Your task to perform on an android device: check data usage Image 0: 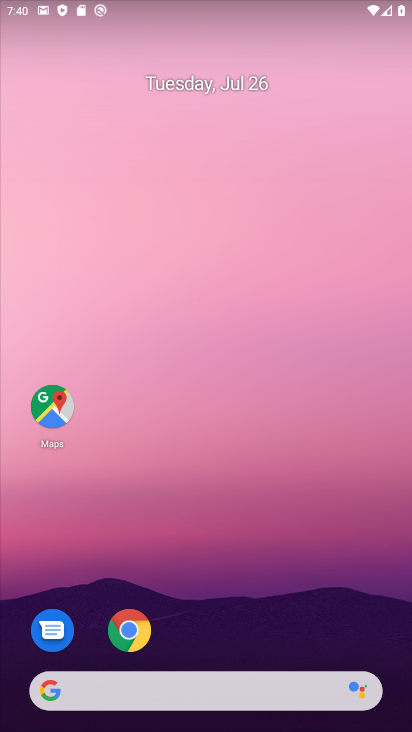
Step 0: drag from (218, 662) to (192, 21)
Your task to perform on an android device: check data usage Image 1: 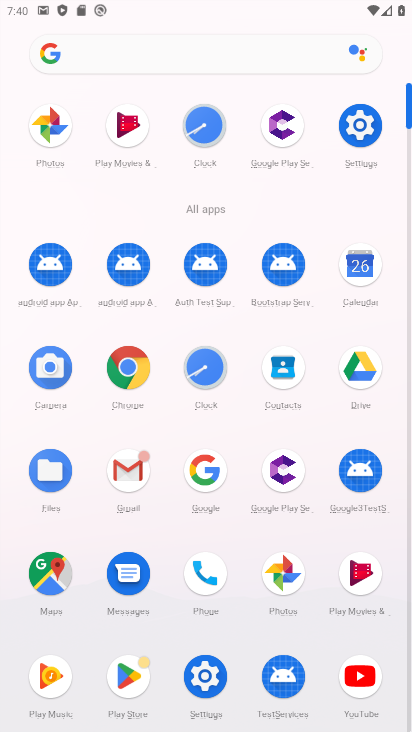
Step 1: click (348, 139)
Your task to perform on an android device: check data usage Image 2: 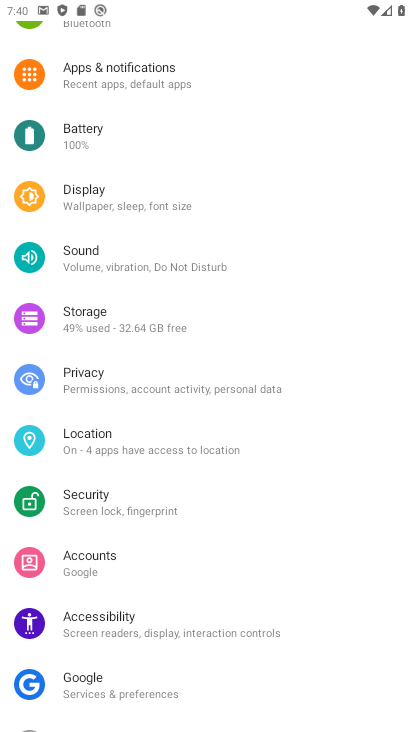
Step 2: drag from (223, 84) to (303, 493)
Your task to perform on an android device: check data usage Image 3: 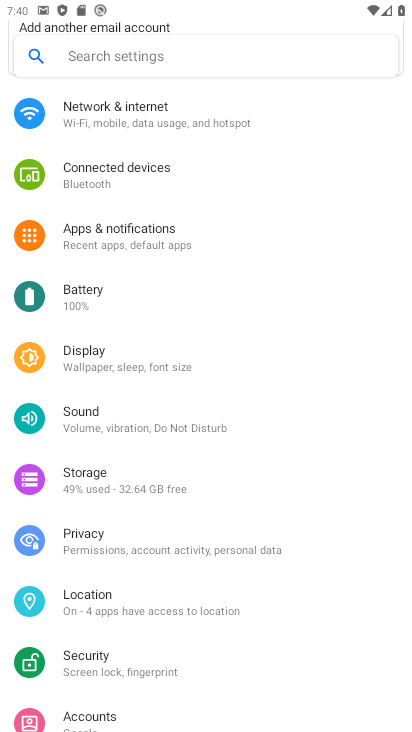
Step 3: click (187, 105)
Your task to perform on an android device: check data usage Image 4: 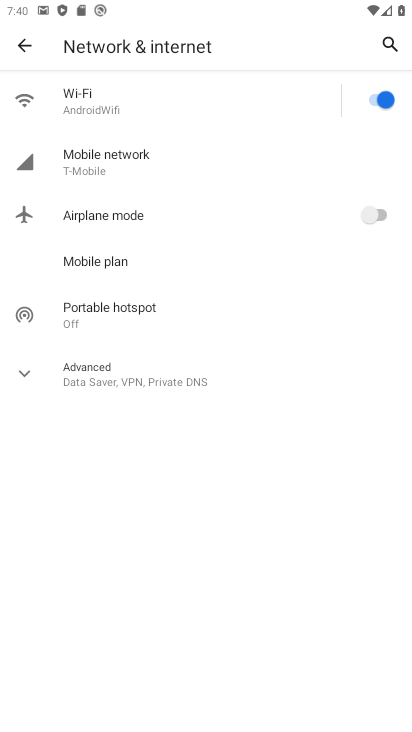
Step 4: click (187, 105)
Your task to perform on an android device: check data usage Image 5: 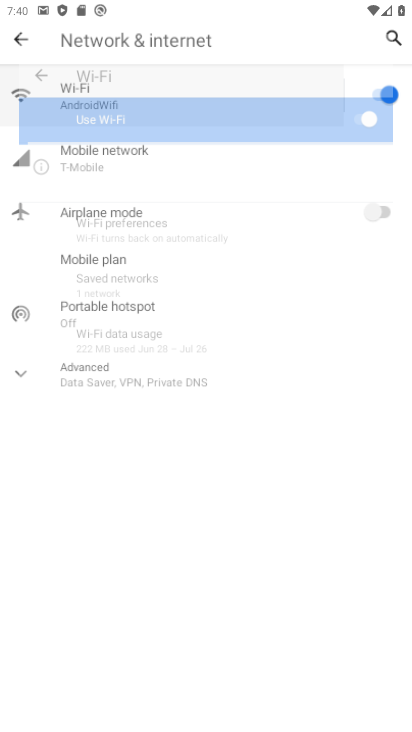
Step 5: task complete